Your task to perform on an android device: turn on location history Image 0: 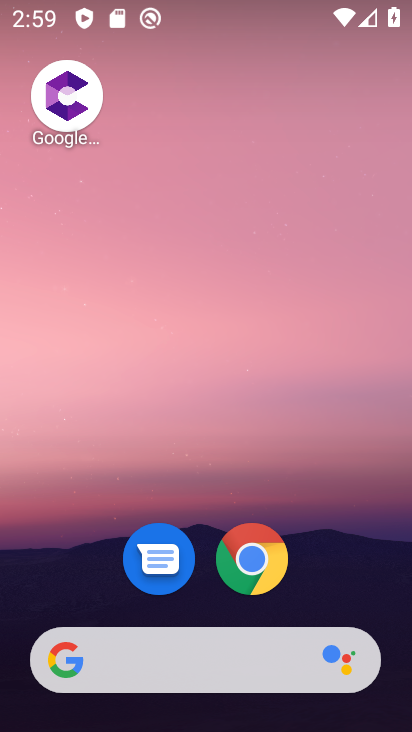
Step 0: drag from (180, 567) to (212, 12)
Your task to perform on an android device: turn on location history Image 1: 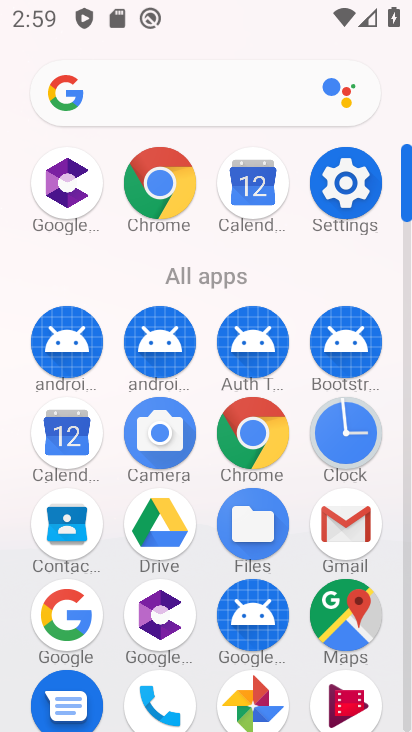
Step 1: click (353, 187)
Your task to perform on an android device: turn on location history Image 2: 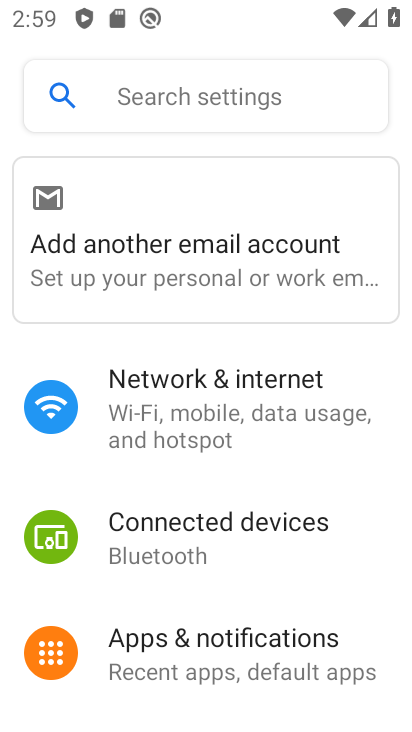
Step 2: drag from (211, 634) to (253, 57)
Your task to perform on an android device: turn on location history Image 3: 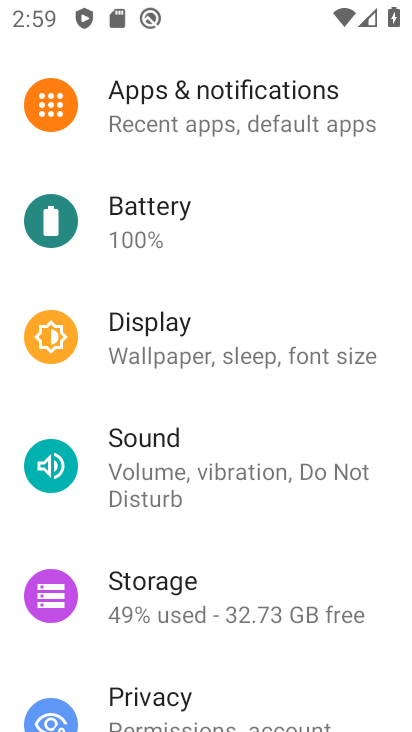
Step 3: drag from (166, 650) to (277, 111)
Your task to perform on an android device: turn on location history Image 4: 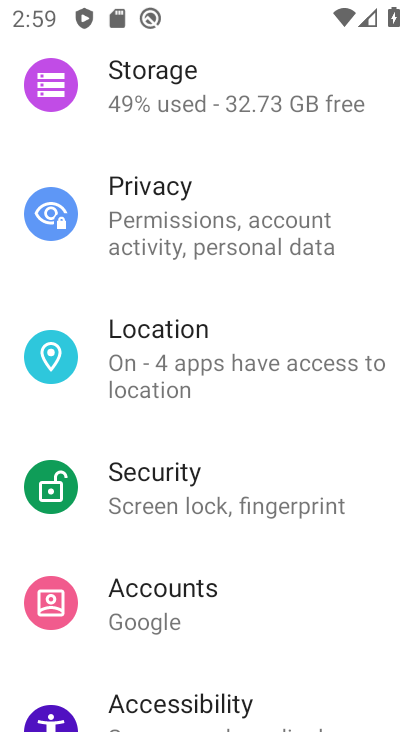
Step 4: click (174, 354)
Your task to perform on an android device: turn on location history Image 5: 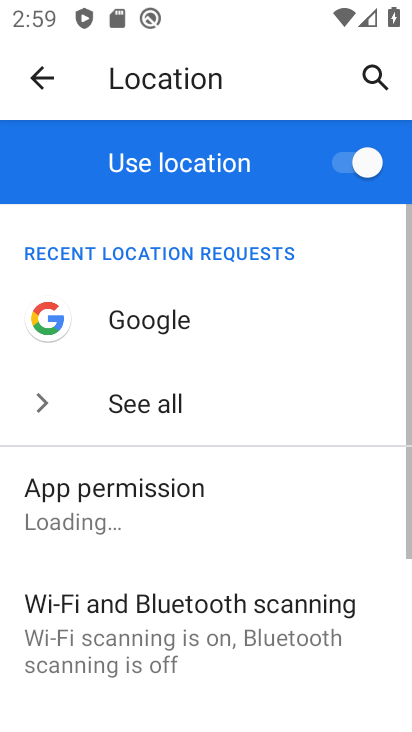
Step 5: drag from (151, 536) to (207, 177)
Your task to perform on an android device: turn on location history Image 6: 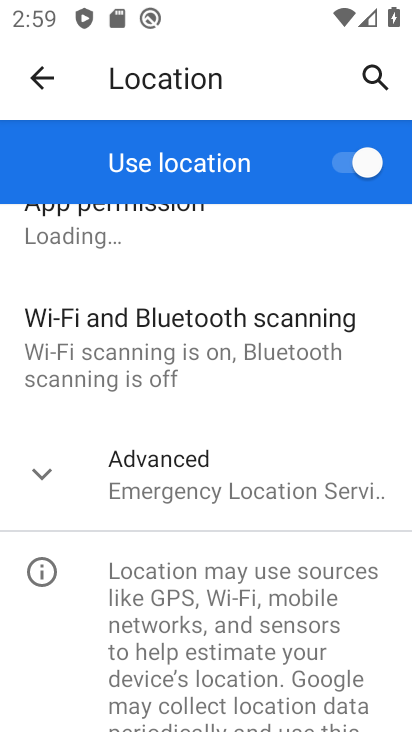
Step 6: click (184, 471)
Your task to perform on an android device: turn on location history Image 7: 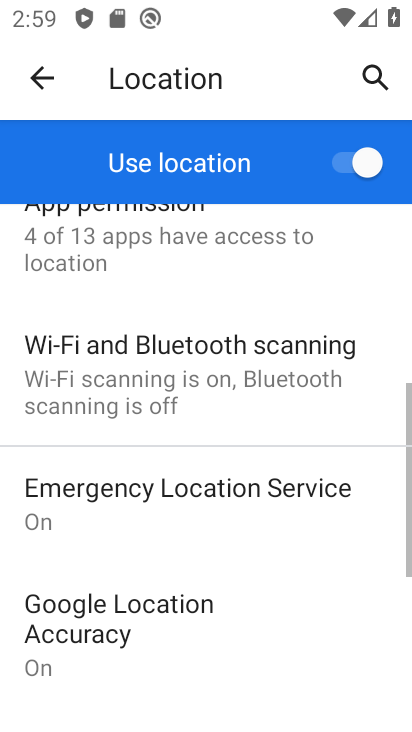
Step 7: drag from (141, 647) to (231, 204)
Your task to perform on an android device: turn on location history Image 8: 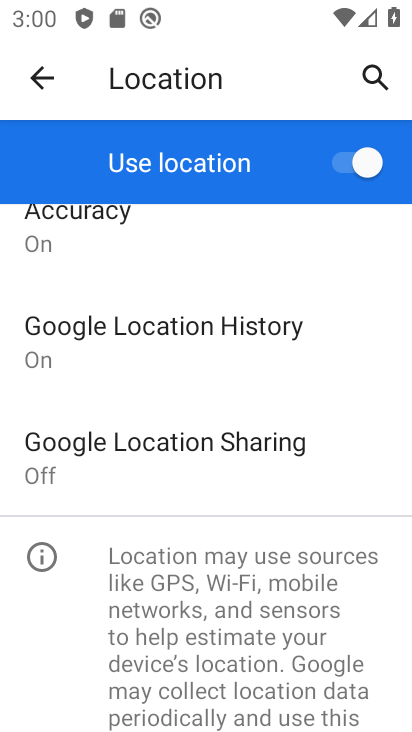
Step 8: click (190, 326)
Your task to perform on an android device: turn on location history Image 9: 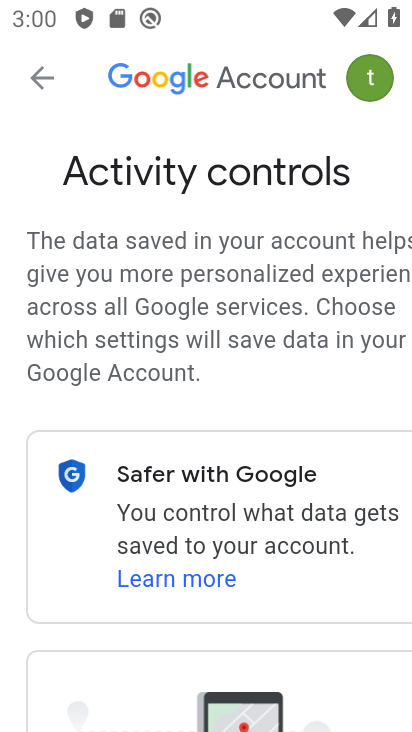
Step 9: task complete